Your task to perform on an android device: check data usage Image 0: 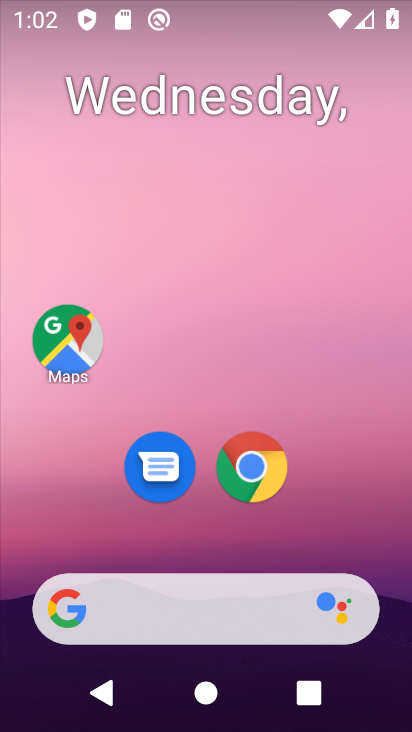
Step 0: drag from (300, 438) to (215, 13)
Your task to perform on an android device: check data usage Image 1: 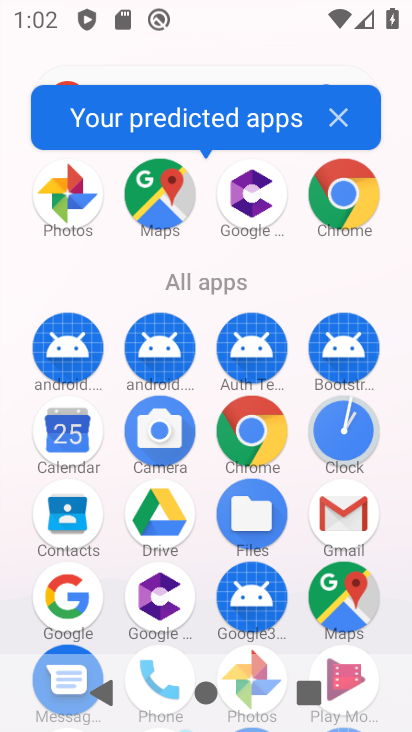
Step 1: drag from (218, 504) to (219, 136)
Your task to perform on an android device: check data usage Image 2: 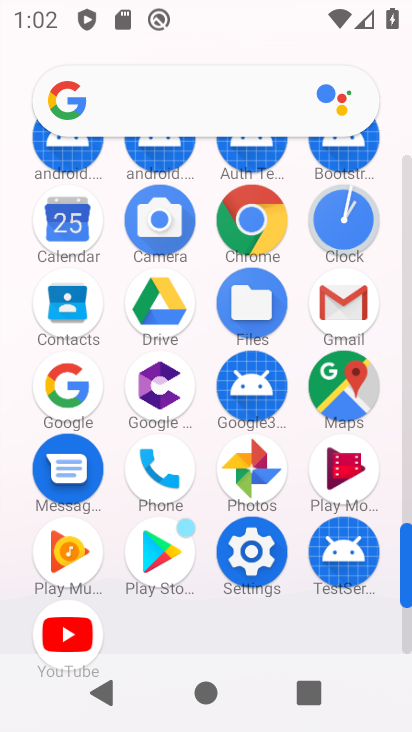
Step 2: click (257, 562)
Your task to perform on an android device: check data usage Image 3: 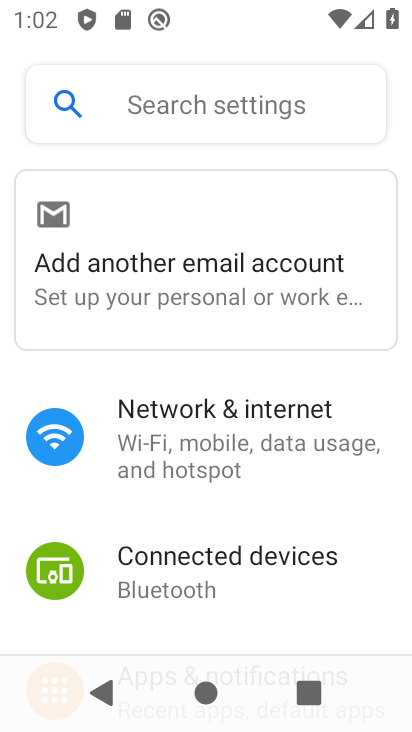
Step 3: click (218, 462)
Your task to perform on an android device: check data usage Image 4: 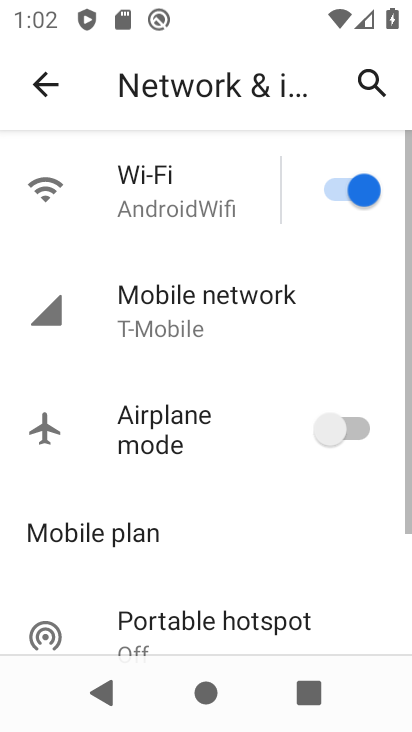
Step 4: click (201, 289)
Your task to perform on an android device: check data usage Image 5: 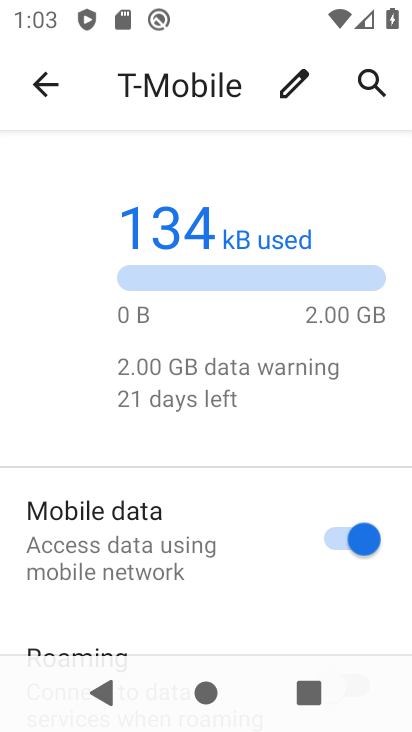
Step 5: task complete